Your task to perform on an android device: turn on improve location accuracy Image 0: 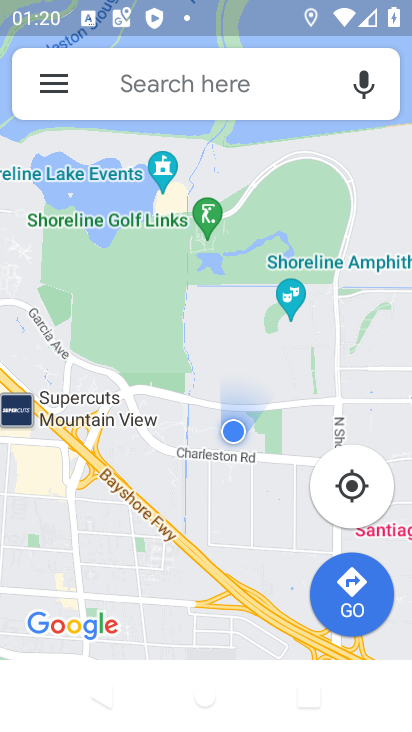
Step 0: press home button
Your task to perform on an android device: turn on improve location accuracy Image 1: 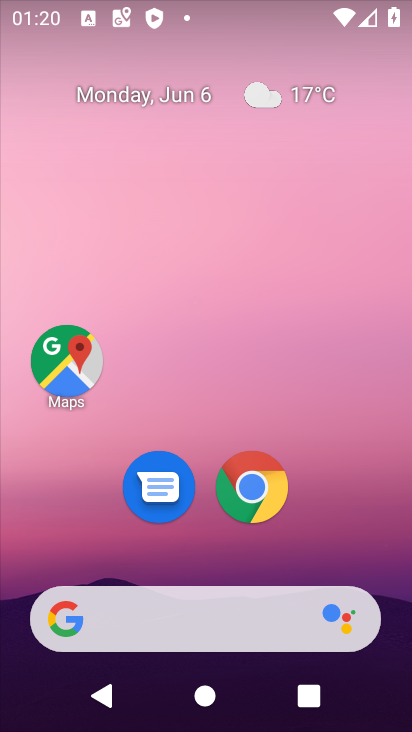
Step 1: drag from (404, 608) to (333, 67)
Your task to perform on an android device: turn on improve location accuracy Image 2: 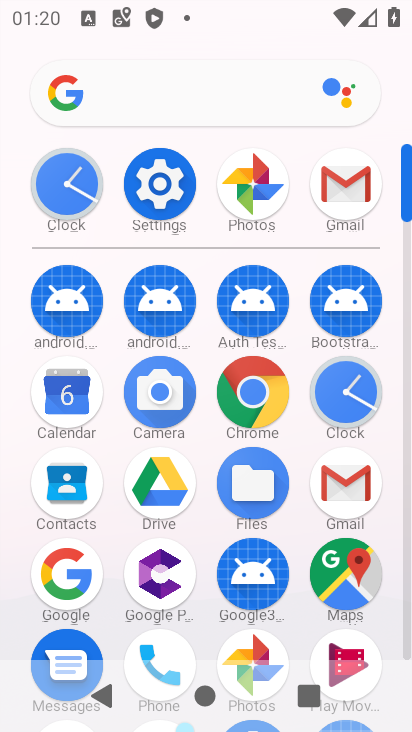
Step 2: click (408, 636)
Your task to perform on an android device: turn on improve location accuracy Image 3: 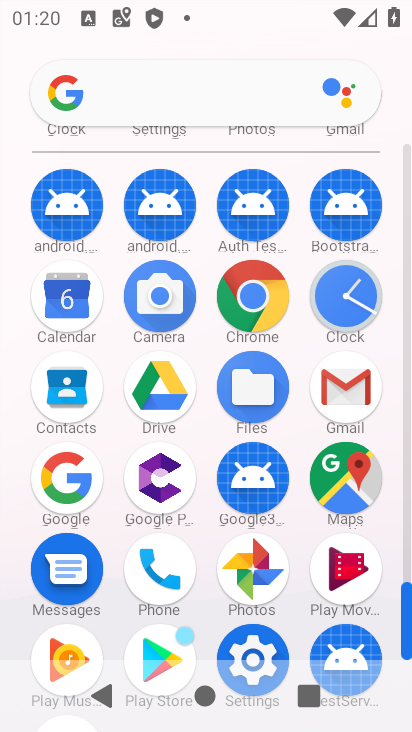
Step 3: click (251, 651)
Your task to perform on an android device: turn on improve location accuracy Image 4: 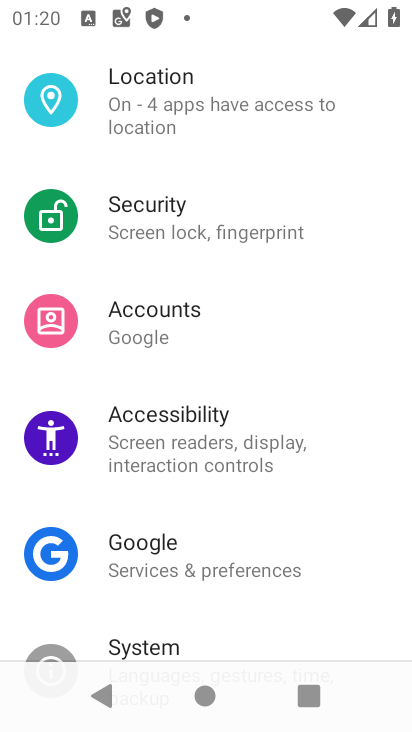
Step 4: drag from (330, 104) to (316, 243)
Your task to perform on an android device: turn on improve location accuracy Image 5: 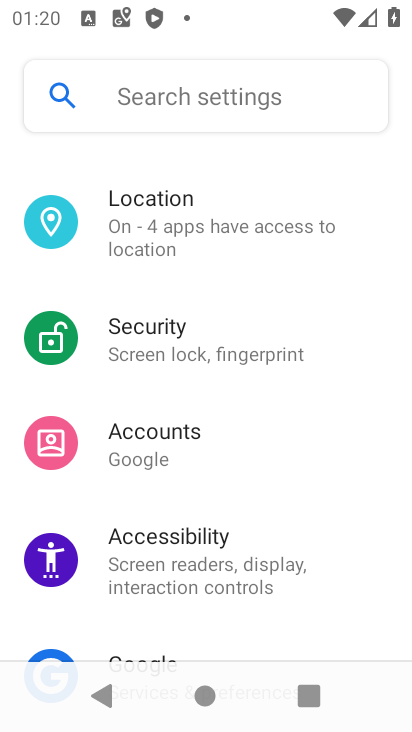
Step 5: click (148, 223)
Your task to perform on an android device: turn on improve location accuracy Image 6: 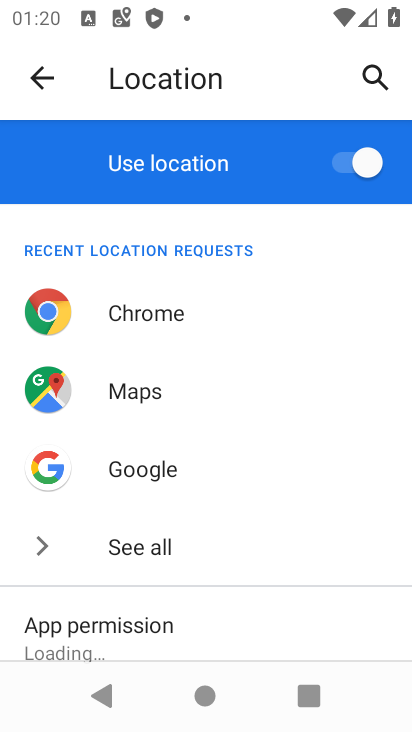
Step 6: drag from (260, 585) to (257, 151)
Your task to perform on an android device: turn on improve location accuracy Image 7: 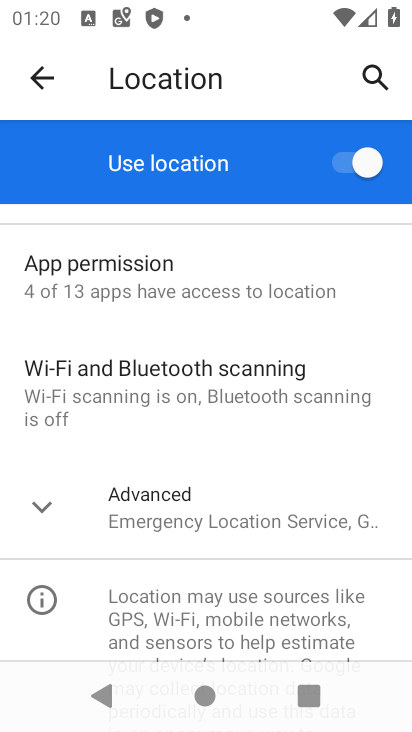
Step 7: click (45, 513)
Your task to perform on an android device: turn on improve location accuracy Image 8: 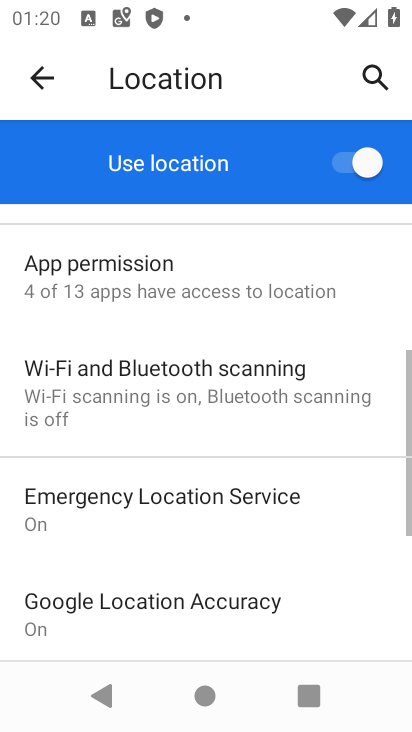
Step 8: drag from (207, 529) to (192, 210)
Your task to perform on an android device: turn on improve location accuracy Image 9: 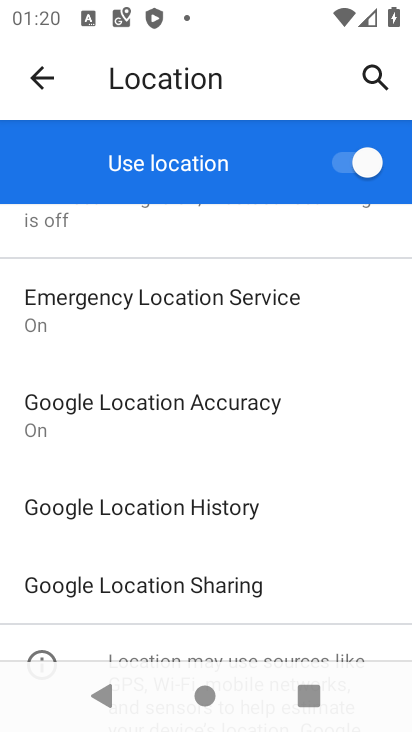
Step 9: click (105, 407)
Your task to perform on an android device: turn on improve location accuracy Image 10: 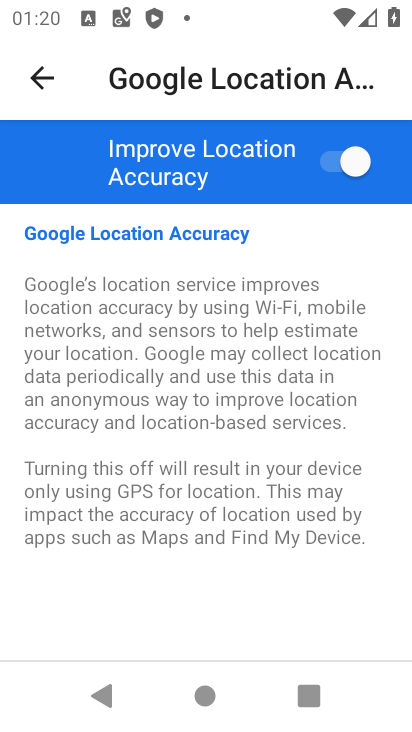
Step 10: task complete